Your task to perform on an android device: change alarm snooze length Image 0: 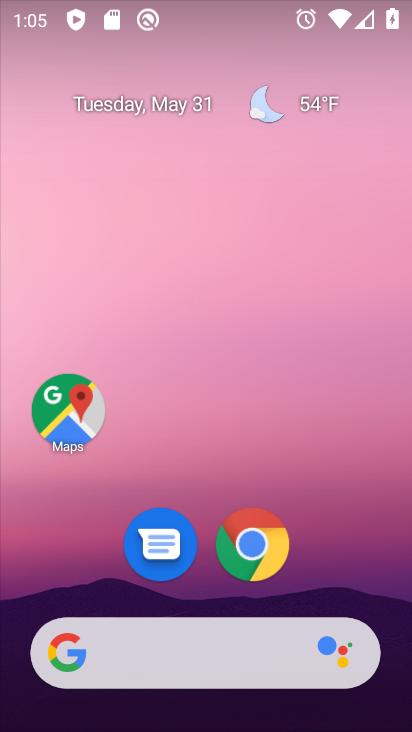
Step 0: drag from (315, 595) to (320, 33)
Your task to perform on an android device: change alarm snooze length Image 1: 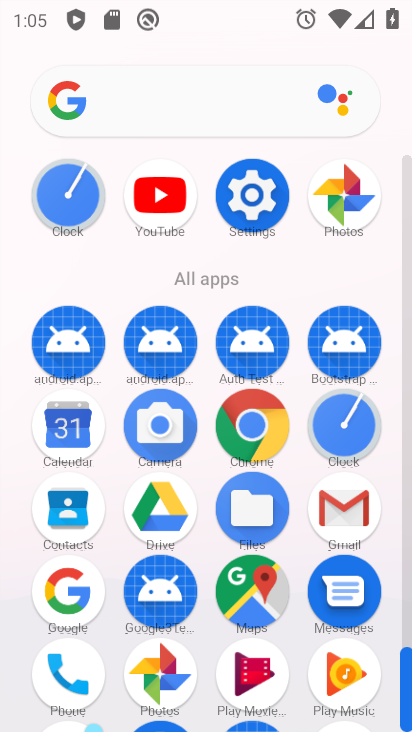
Step 1: click (351, 423)
Your task to perform on an android device: change alarm snooze length Image 2: 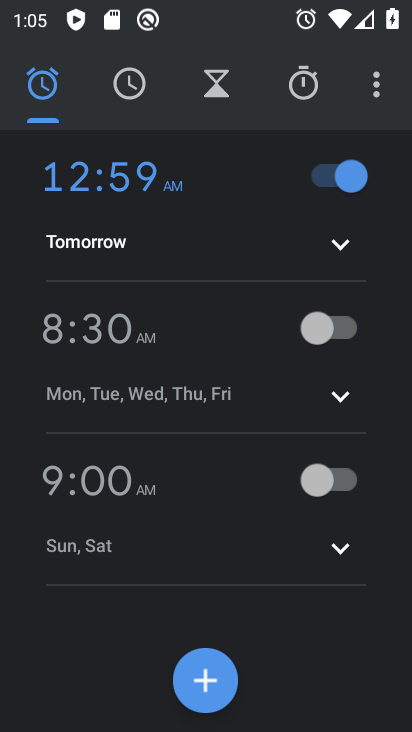
Step 2: click (368, 81)
Your task to perform on an android device: change alarm snooze length Image 3: 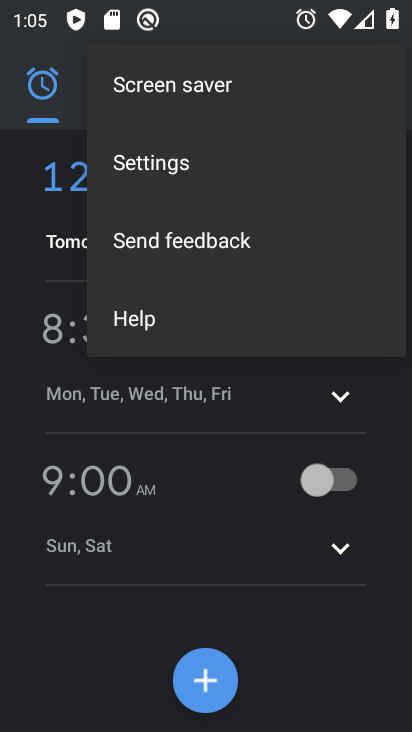
Step 3: click (204, 175)
Your task to perform on an android device: change alarm snooze length Image 4: 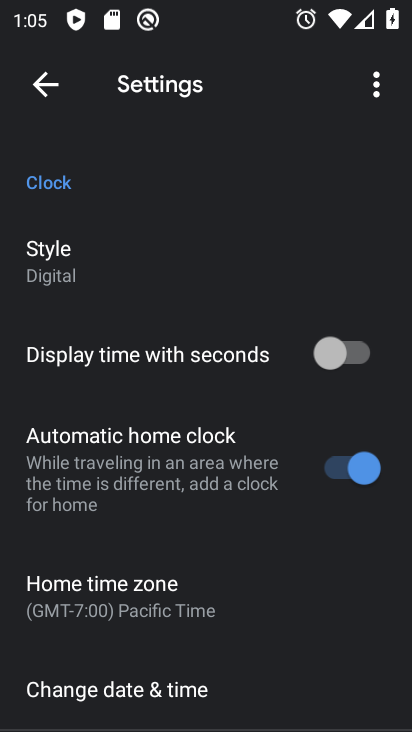
Step 4: drag from (111, 665) to (134, 316)
Your task to perform on an android device: change alarm snooze length Image 5: 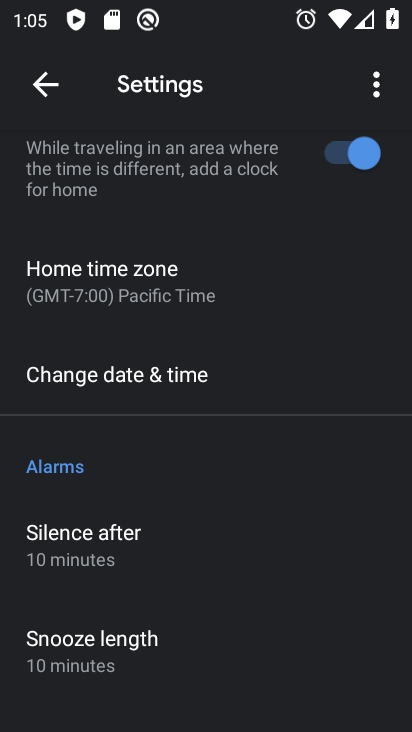
Step 5: click (119, 640)
Your task to perform on an android device: change alarm snooze length Image 6: 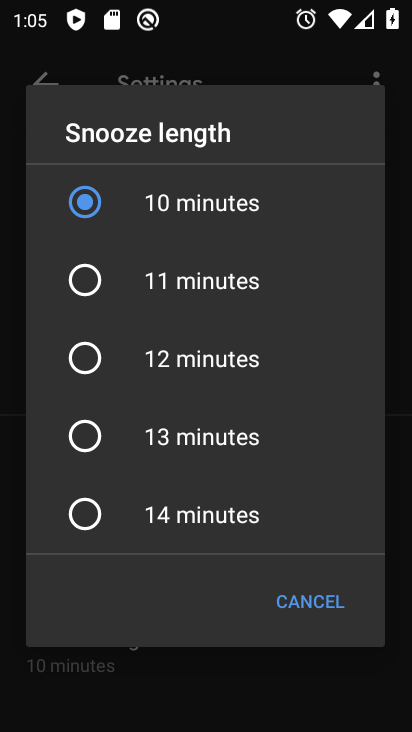
Step 6: click (144, 510)
Your task to perform on an android device: change alarm snooze length Image 7: 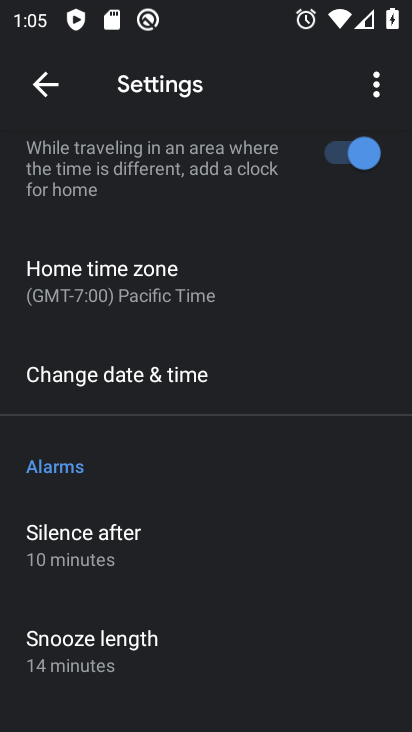
Step 7: task complete